Your task to perform on an android device: turn smart compose on in the gmail app Image 0: 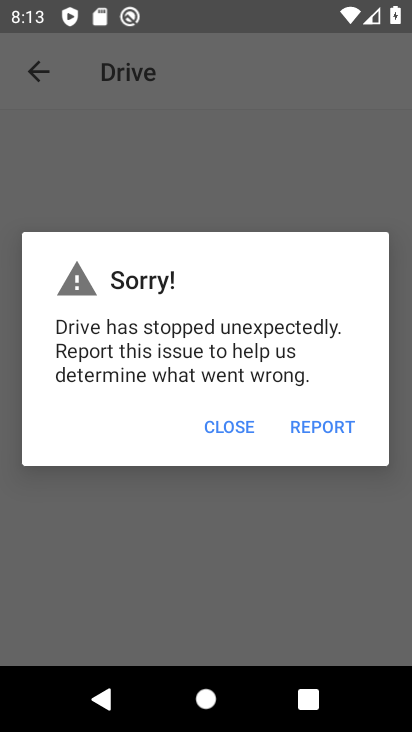
Step 0: press home button
Your task to perform on an android device: turn smart compose on in the gmail app Image 1: 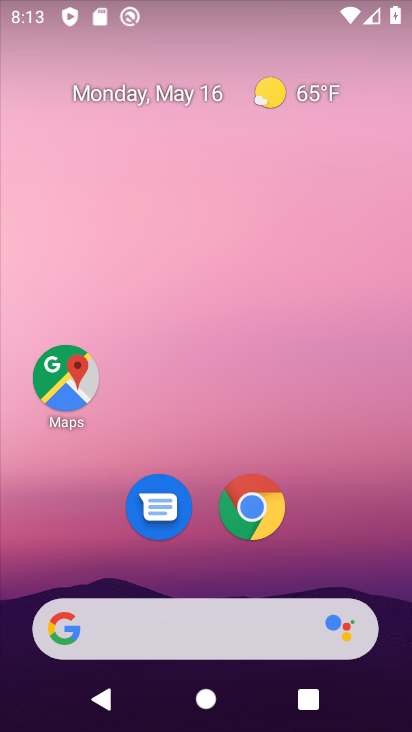
Step 1: drag from (207, 574) to (187, 21)
Your task to perform on an android device: turn smart compose on in the gmail app Image 2: 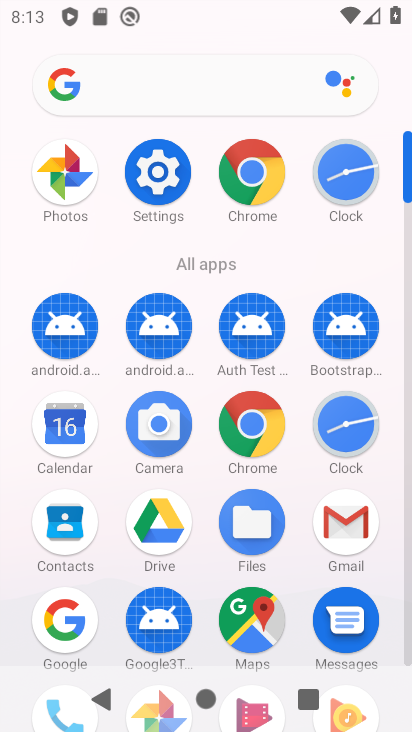
Step 2: click (368, 537)
Your task to perform on an android device: turn smart compose on in the gmail app Image 3: 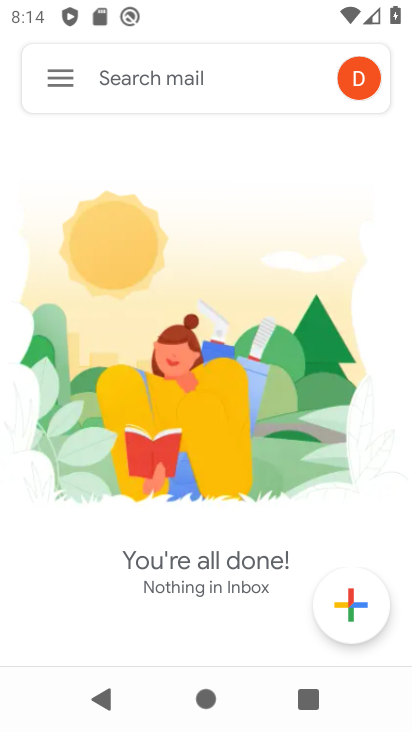
Step 3: click (67, 88)
Your task to perform on an android device: turn smart compose on in the gmail app Image 4: 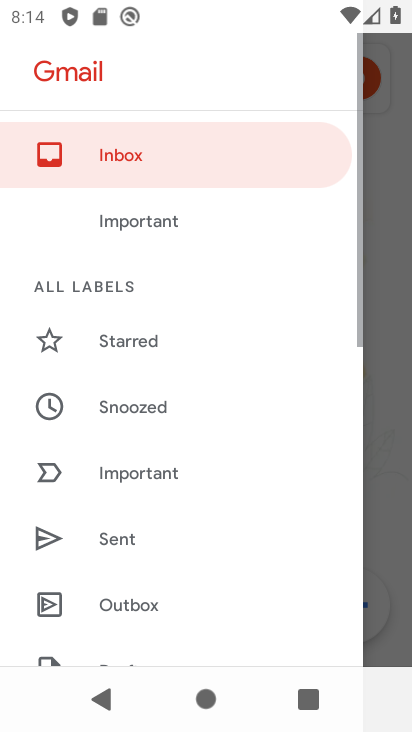
Step 4: drag from (158, 510) to (162, 0)
Your task to perform on an android device: turn smart compose on in the gmail app Image 5: 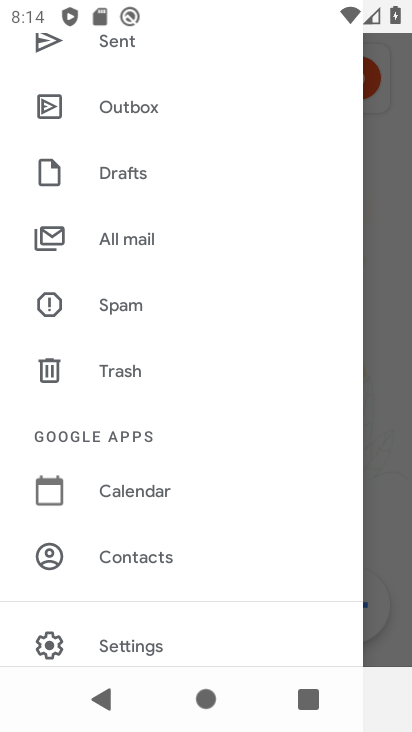
Step 5: click (142, 614)
Your task to perform on an android device: turn smart compose on in the gmail app Image 6: 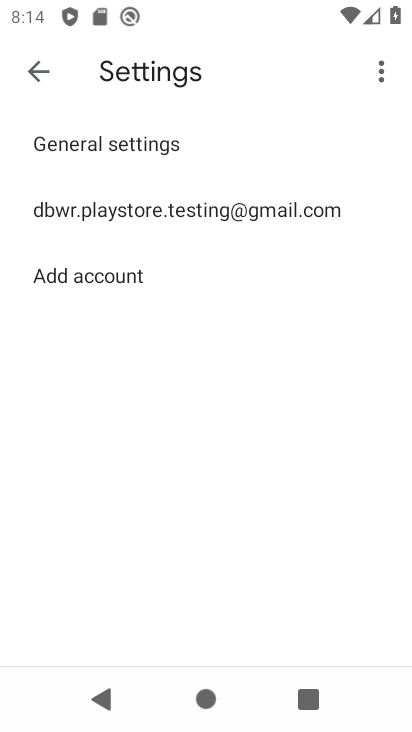
Step 6: click (90, 203)
Your task to perform on an android device: turn smart compose on in the gmail app Image 7: 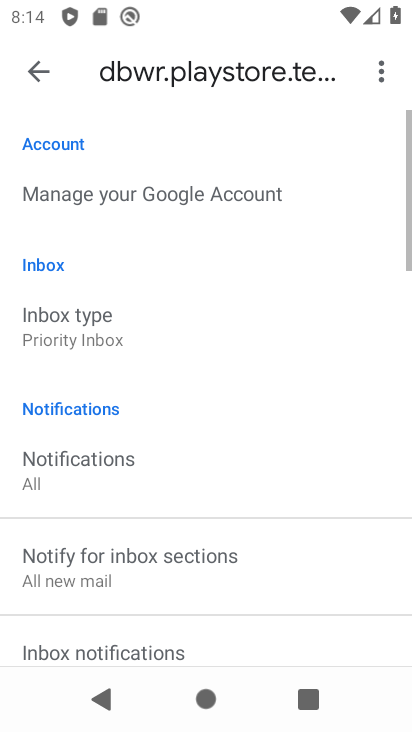
Step 7: task complete